Your task to perform on an android device: set the timer Image 0: 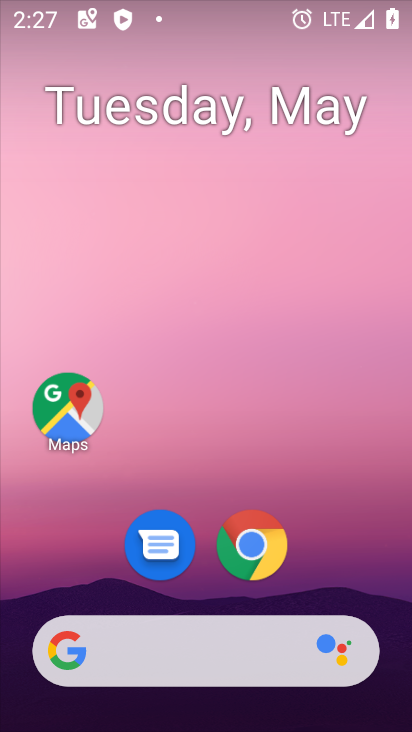
Step 0: drag from (340, 502) to (282, 37)
Your task to perform on an android device: set the timer Image 1: 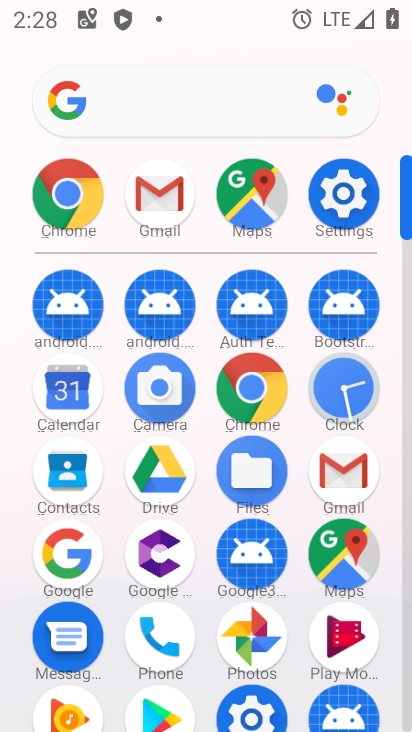
Step 1: click (343, 378)
Your task to perform on an android device: set the timer Image 2: 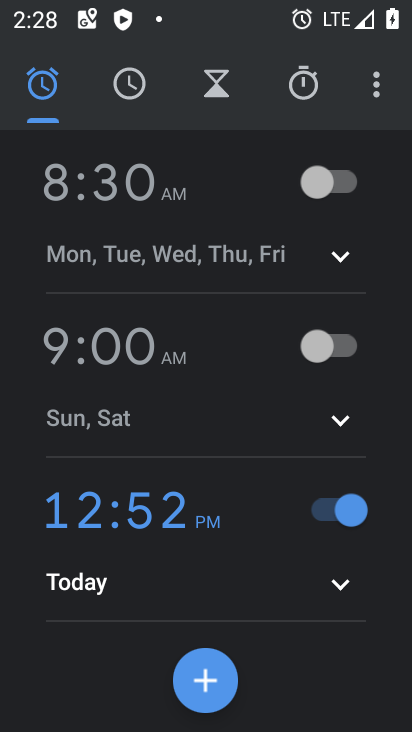
Step 2: click (227, 81)
Your task to perform on an android device: set the timer Image 3: 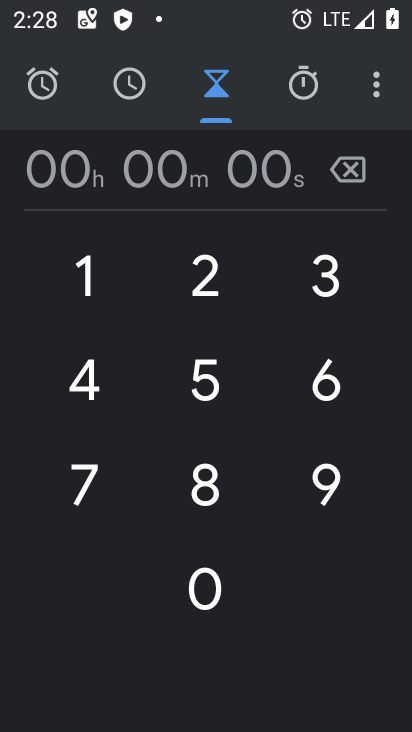
Step 3: click (190, 279)
Your task to perform on an android device: set the timer Image 4: 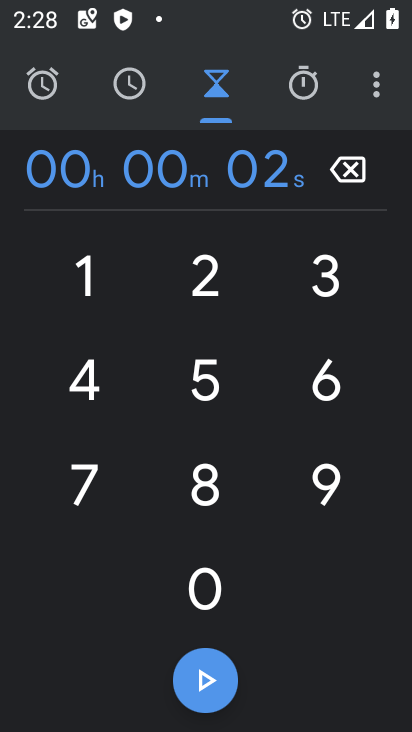
Step 4: click (209, 388)
Your task to perform on an android device: set the timer Image 5: 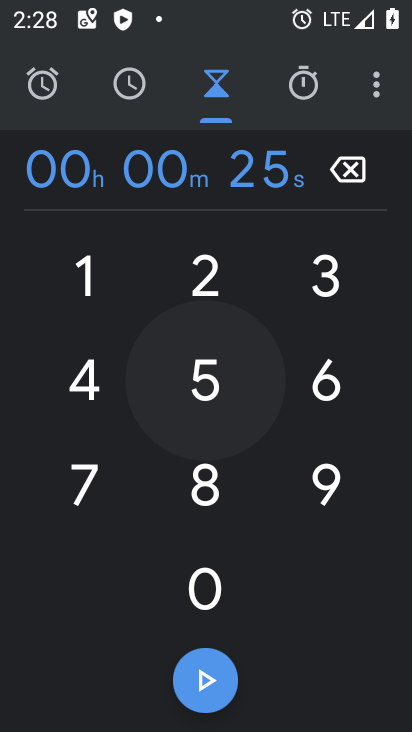
Step 5: click (104, 376)
Your task to perform on an android device: set the timer Image 6: 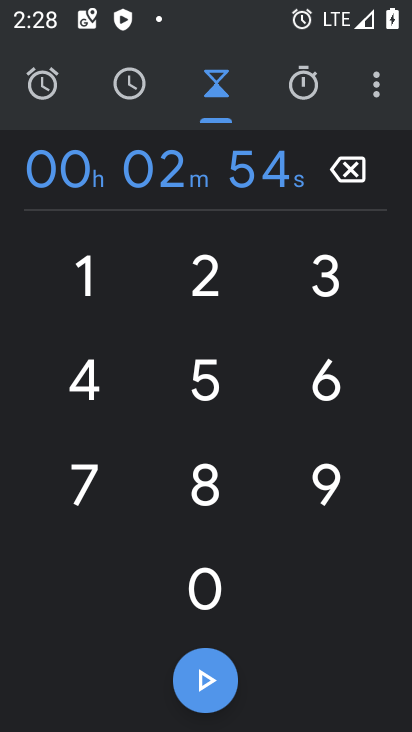
Step 6: click (202, 483)
Your task to perform on an android device: set the timer Image 7: 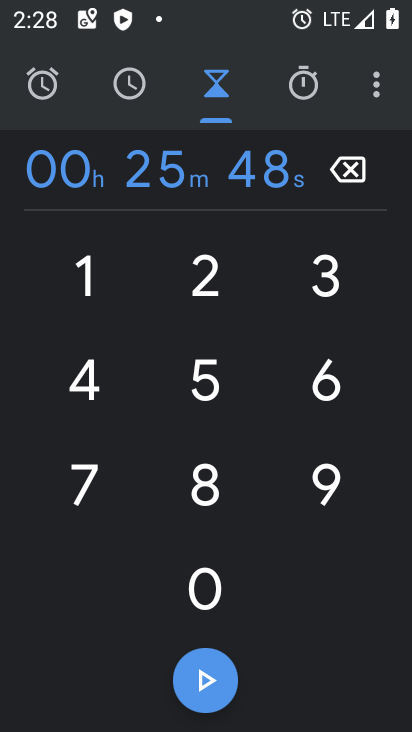
Step 7: click (211, 682)
Your task to perform on an android device: set the timer Image 8: 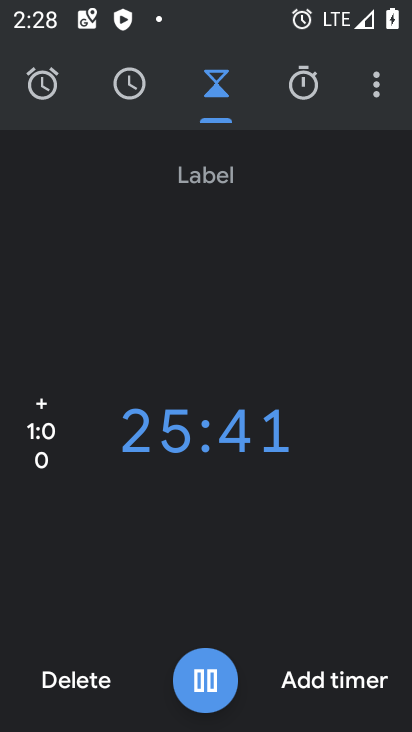
Step 8: task complete